Your task to perform on an android device: Go to eBay Image 0: 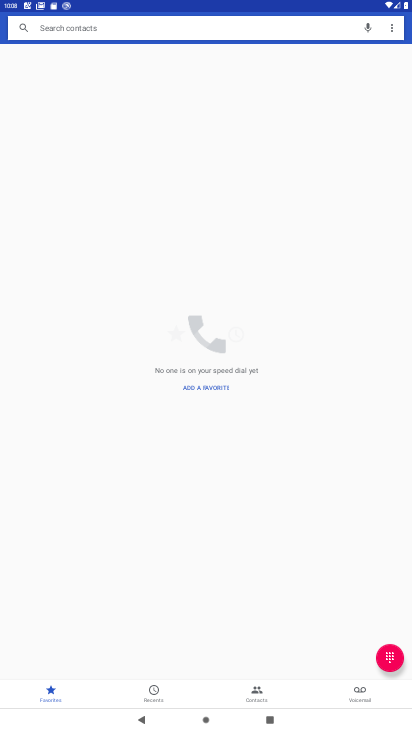
Step 0: press home button
Your task to perform on an android device: Go to eBay Image 1: 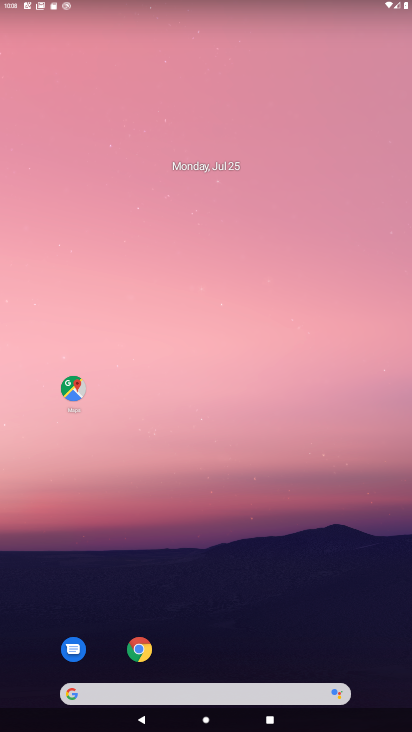
Step 1: click (142, 651)
Your task to perform on an android device: Go to eBay Image 2: 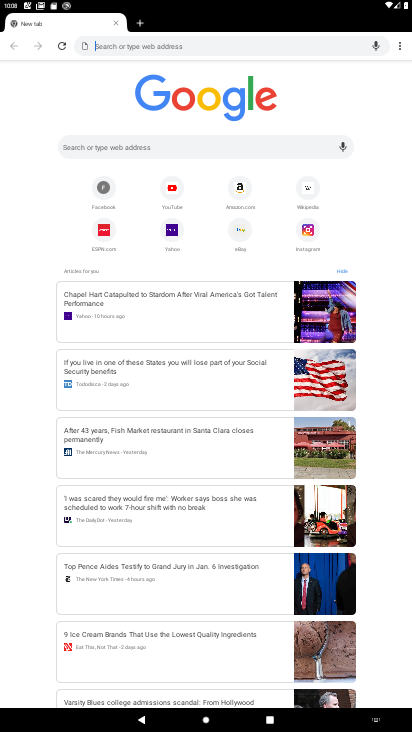
Step 2: click (114, 147)
Your task to perform on an android device: Go to eBay Image 3: 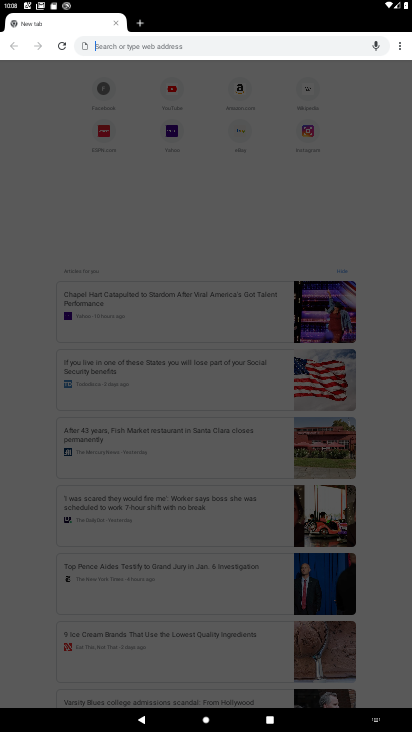
Step 3: type "eBay"
Your task to perform on an android device: Go to eBay Image 4: 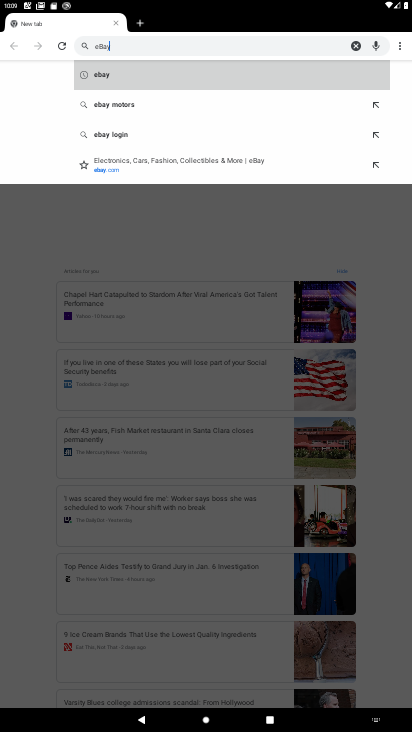
Step 4: click (102, 74)
Your task to perform on an android device: Go to eBay Image 5: 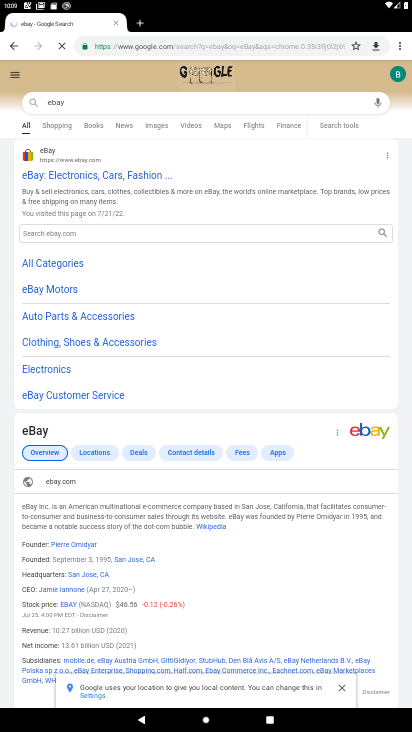
Step 5: click (57, 179)
Your task to perform on an android device: Go to eBay Image 6: 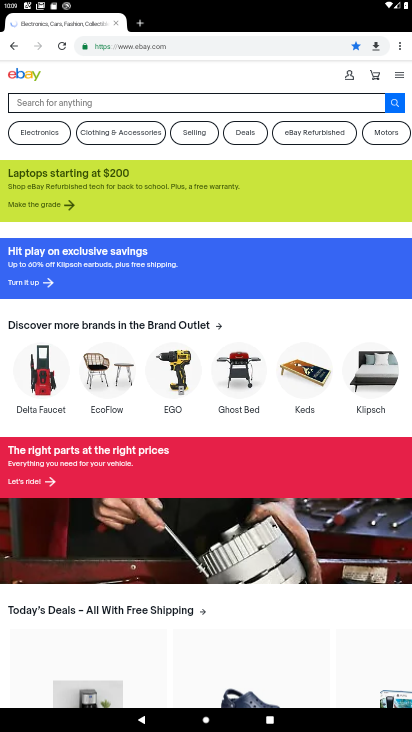
Step 6: task complete